Your task to perform on an android device: open chrome privacy settings Image 0: 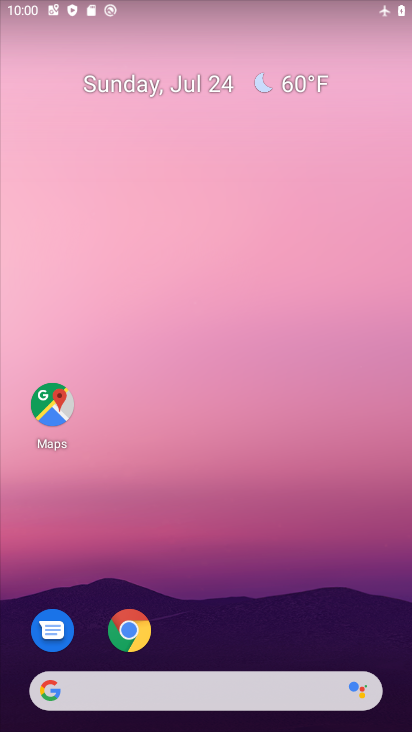
Step 0: click (130, 619)
Your task to perform on an android device: open chrome privacy settings Image 1: 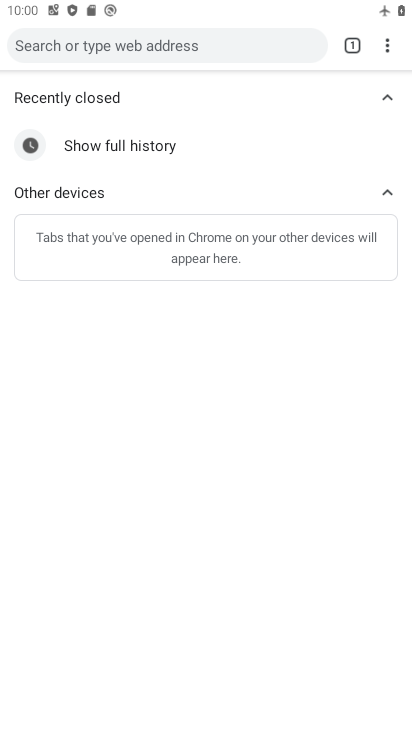
Step 1: click (384, 47)
Your task to perform on an android device: open chrome privacy settings Image 2: 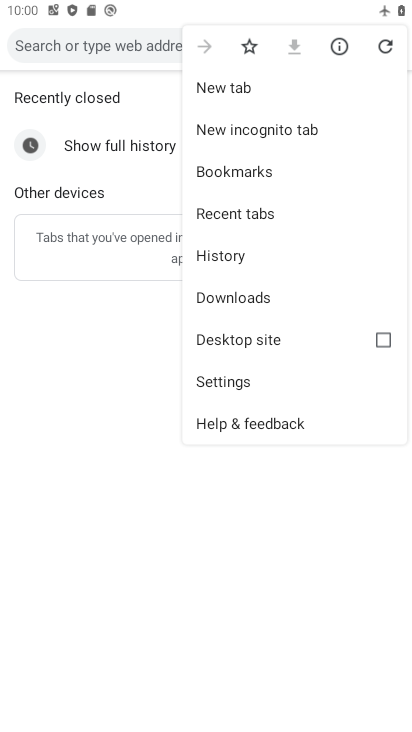
Step 2: click (237, 382)
Your task to perform on an android device: open chrome privacy settings Image 3: 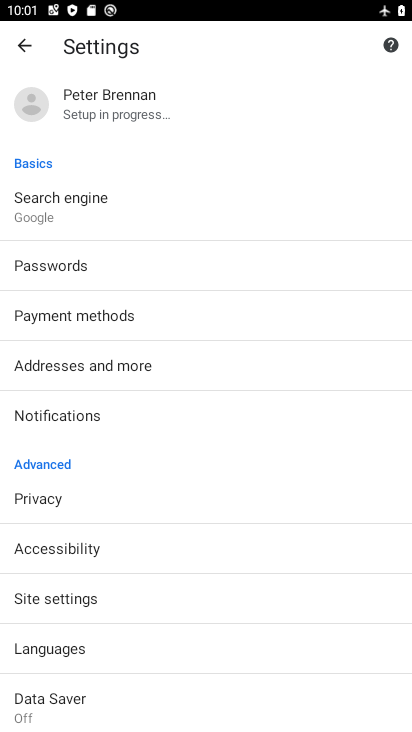
Step 3: click (106, 517)
Your task to perform on an android device: open chrome privacy settings Image 4: 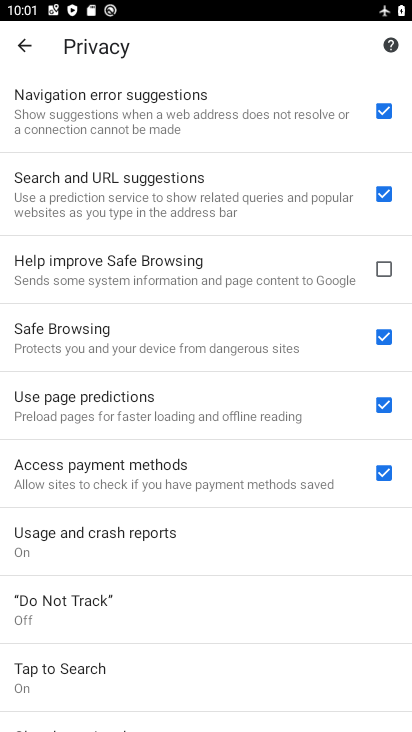
Step 4: task complete